Your task to perform on an android device: open app "Flipkart Online Shopping App" Image 0: 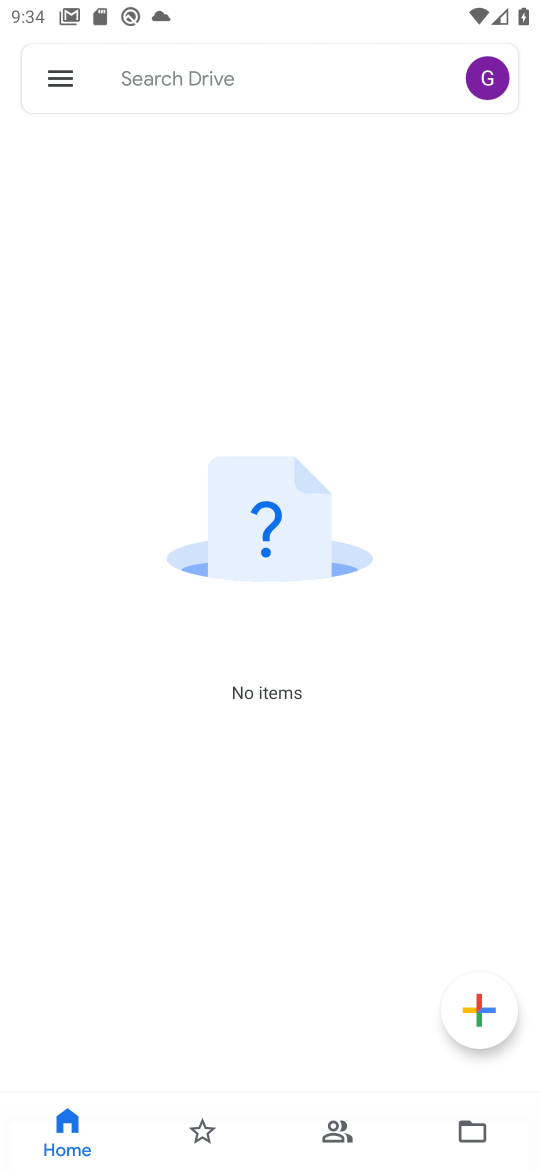
Step 0: press home button
Your task to perform on an android device: open app "Flipkart Online Shopping App" Image 1: 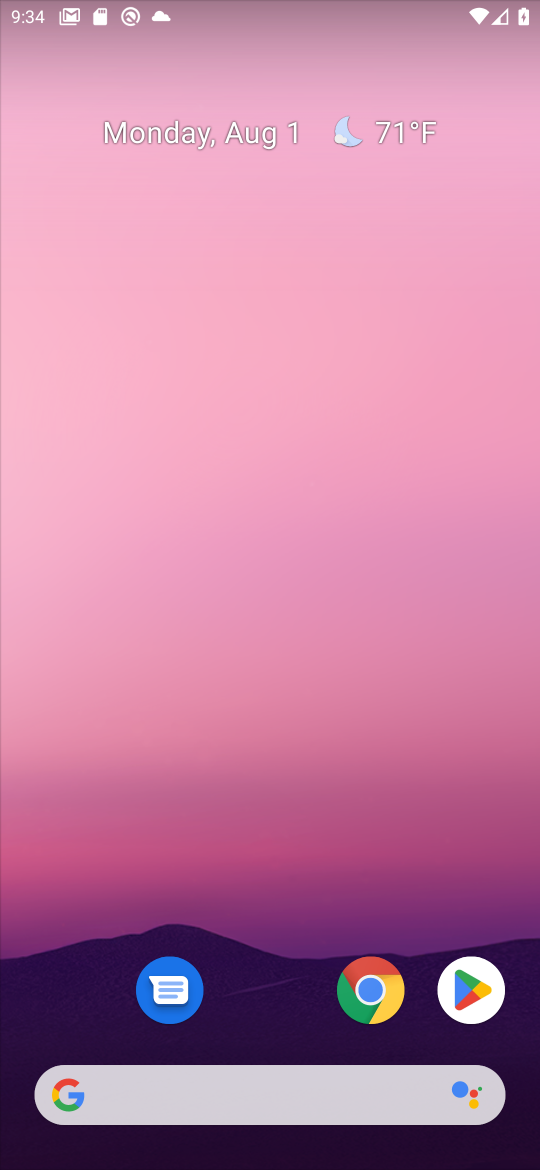
Step 1: press home button
Your task to perform on an android device: open app "Flipkart Online Shopping App" Image 2: 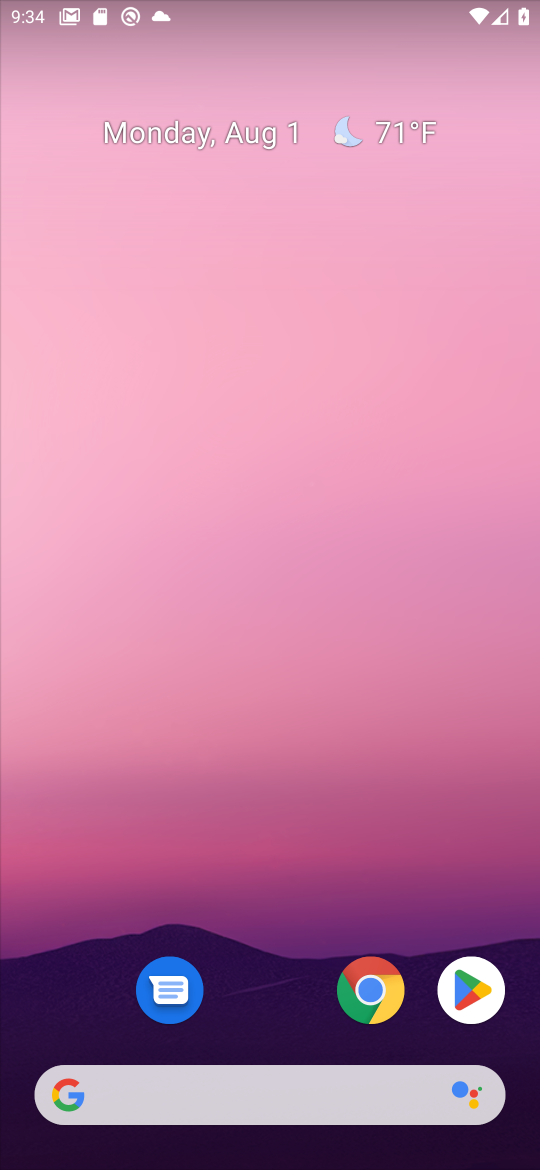
Step 2: click (460, 985)
Your task to perform on an android device: open app "Flipkart Online Shopping App" Image 3: 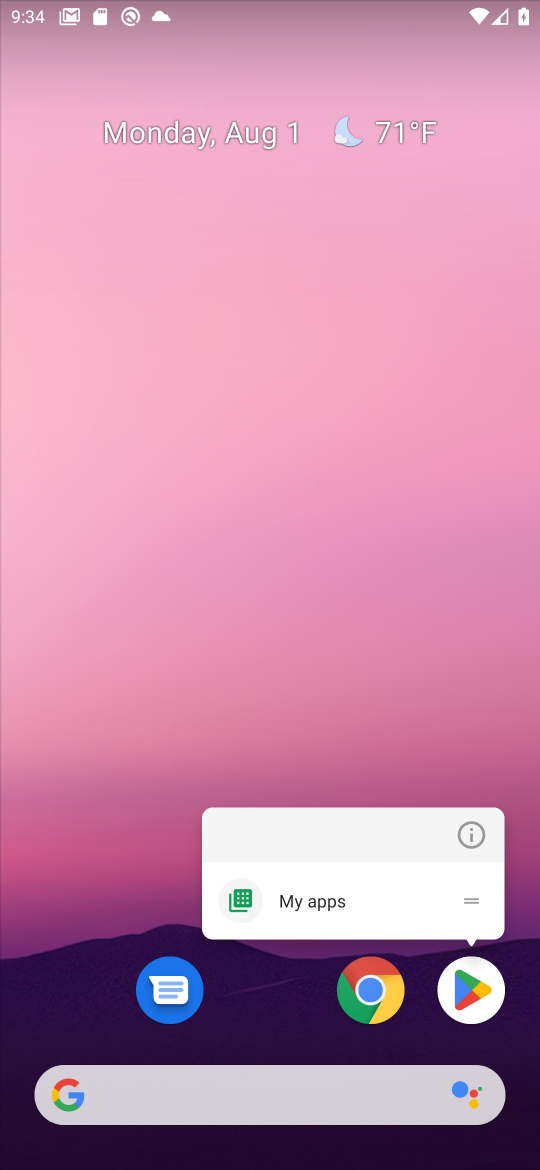
Step 3: click (465, 1017)
Your task to perform on an android device: open app "Flipkart Online Shopping App" Image 4: 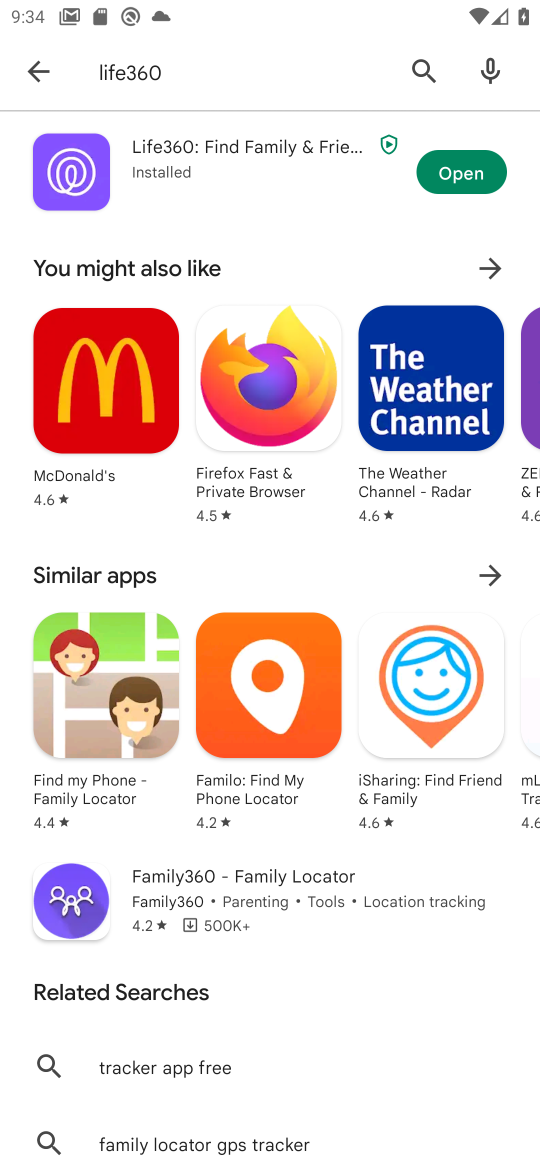
Step 4: click (442, 79)
Your task to perform on an android device: open app "Flipkart Online Shopping App" Image 5: 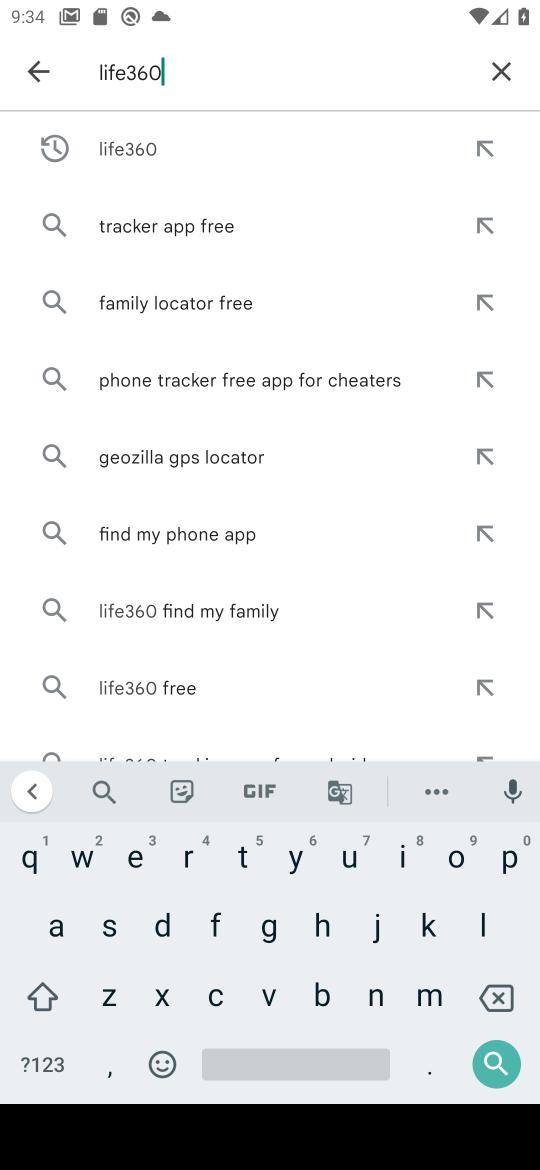
Step 5: click (495, 72)
Your task to perform on an android device: open app "Flipkart Online Shopping App" Image 6: 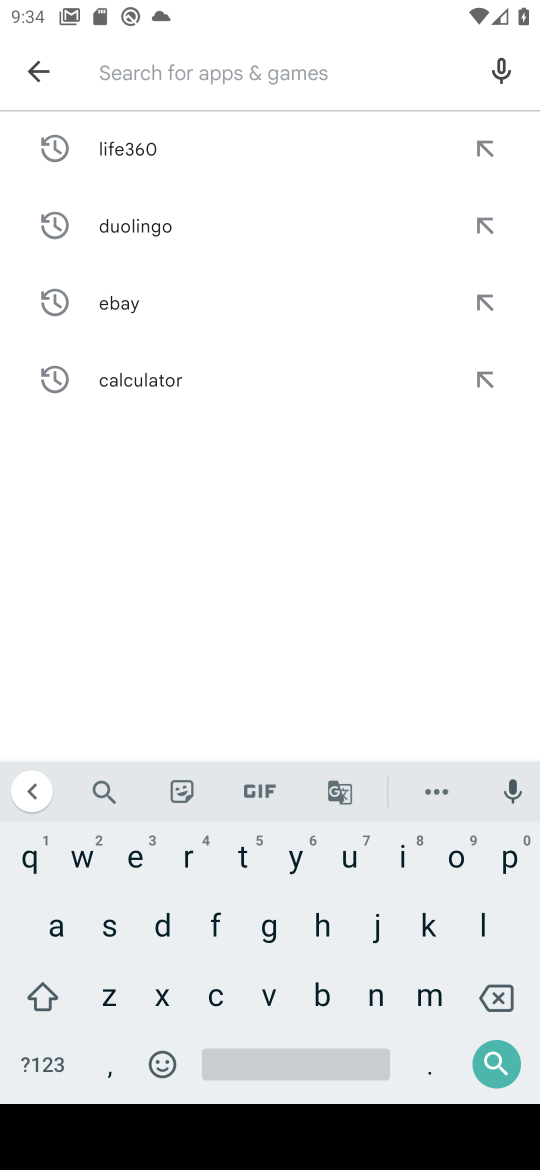
Step 6: click (223, 921)
Your task to perform on an android device: open app "Flipkart Online Shopping App" Image 7: 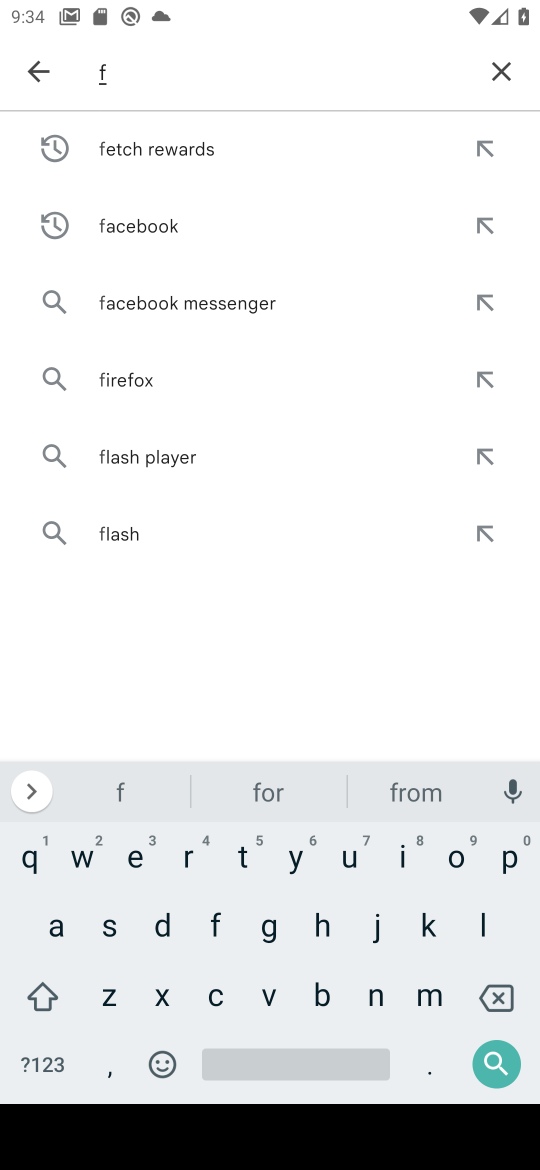
Step 7: click (478, 921)
Your task to perform on an android device: open app "Flipkart Online Shopping App" Image 8: 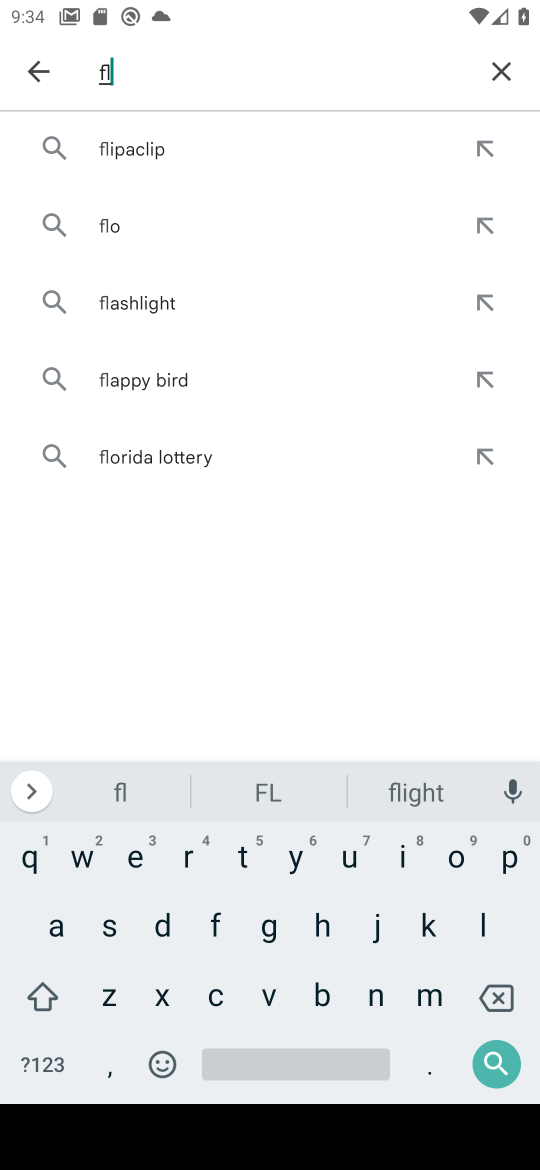
Step 8: click (414, 848)
Your task to perform on an android device: open app "Flipkart Online Shopping App" Image 9: 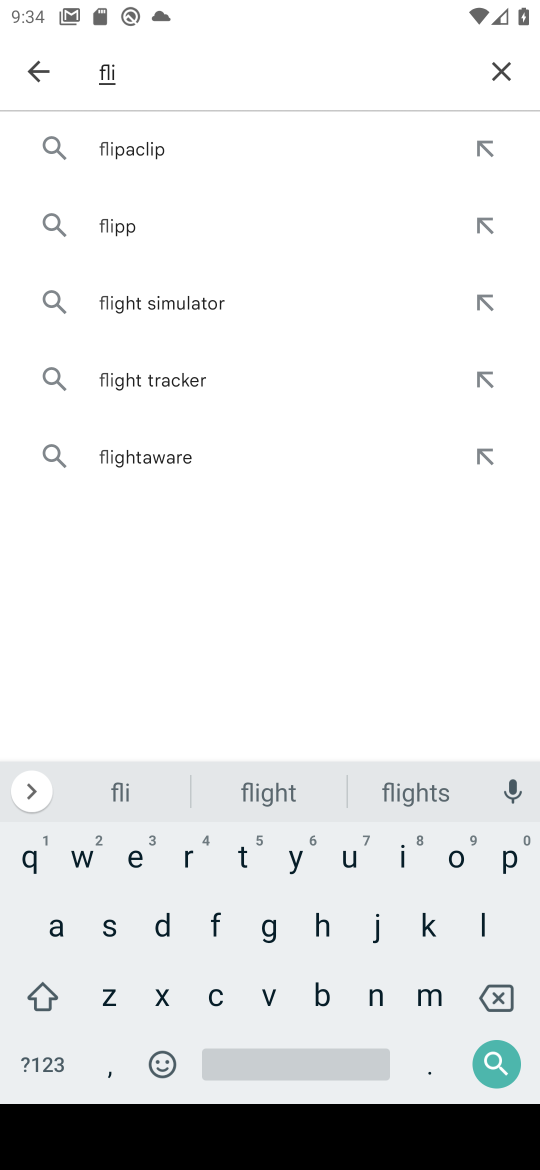
Step 9: click (519, 864)
Your task to perform on an android device: open app "Flipkart Online Shopping App" Image 10: 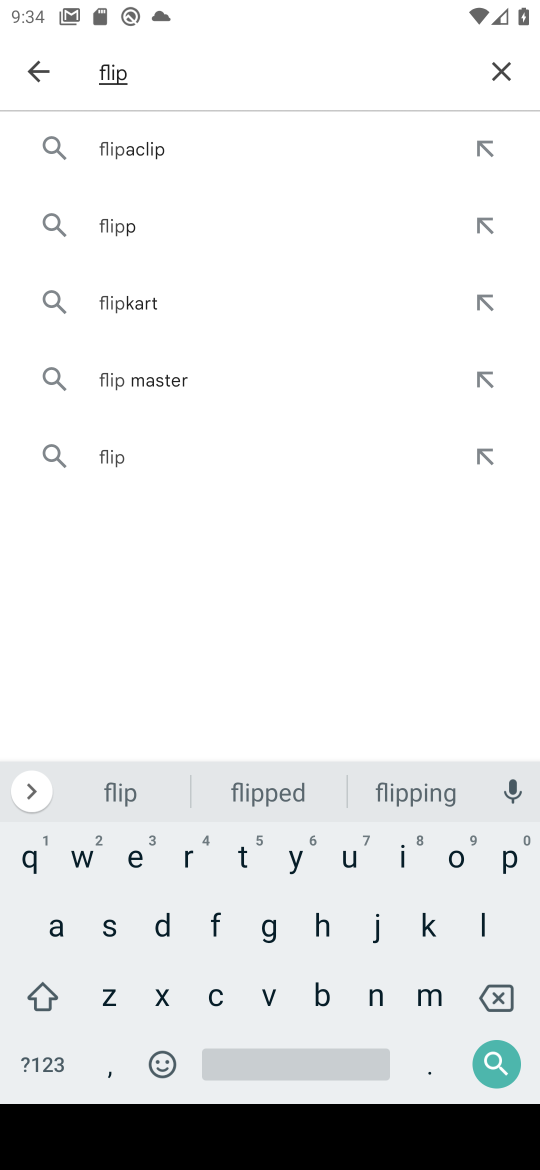
Step 10: click (163, 299)
Your task to perform on an android device: open app "Flipkart Online Shopping App" Image 11: 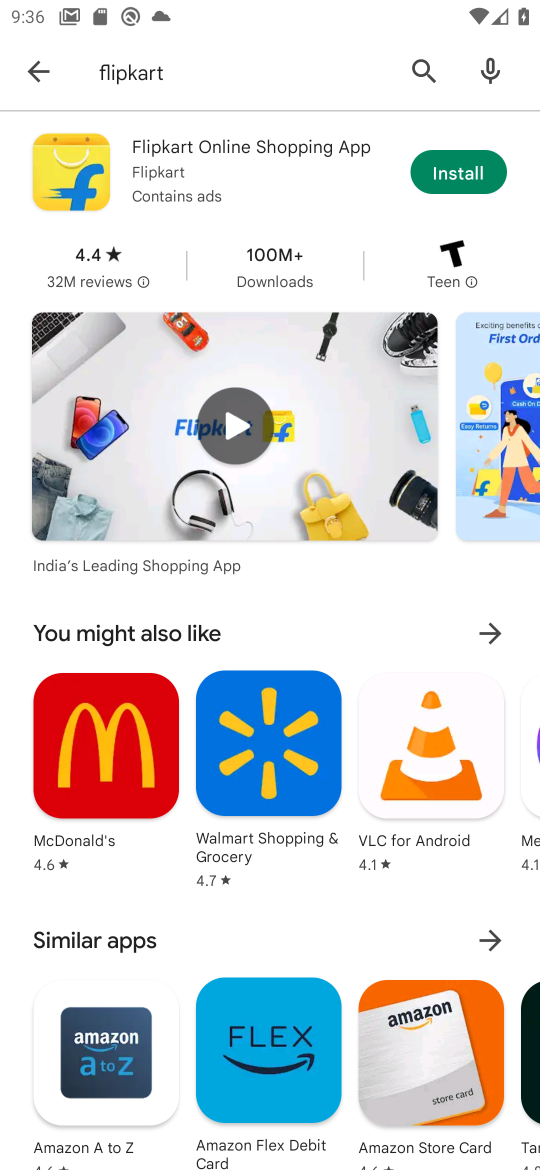
Step 11: task complete